Your task to perform on an android device: Open calendar and show me the first week of next month Image 0: 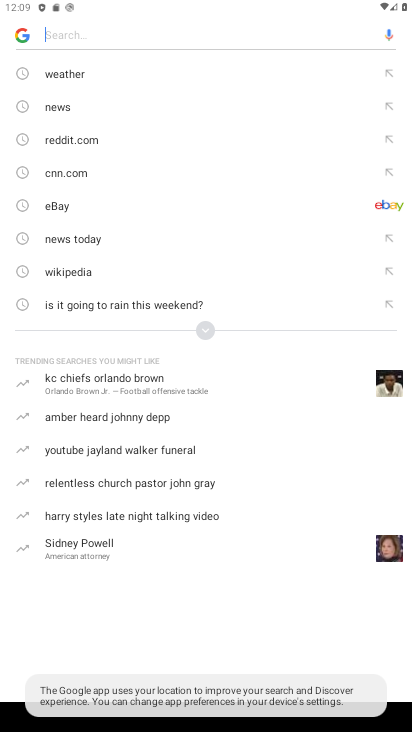
Step 0: press home button
Your task to perform on an android device: Open calendar and show me the first week of next month Image 1: 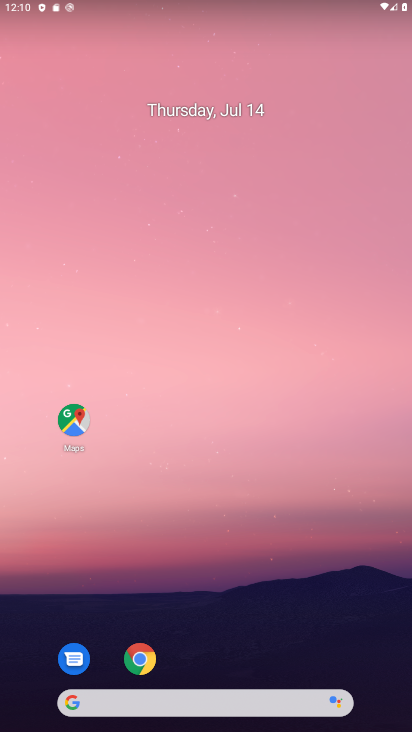
Step 1: drag from (319, 623) to (260, 219)
Your task to perform on an android device: Open calendar and show me the first week of next month Image 2: 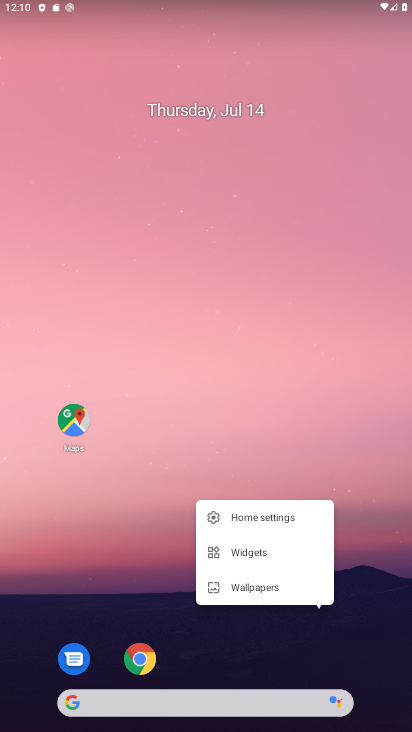
Step 2: drag from (388, 639) to (310, 203)
Your task to perform on an android device: Open calendar and show me the first week of next month Image 3: 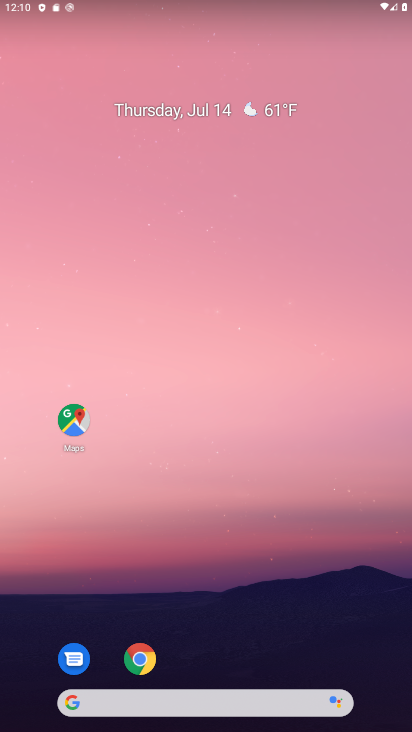
Step 3: drag from (392, 644) to (307, 211)
Your task to perform on an android device: Open calendar and show me the first week of next month Image 4: 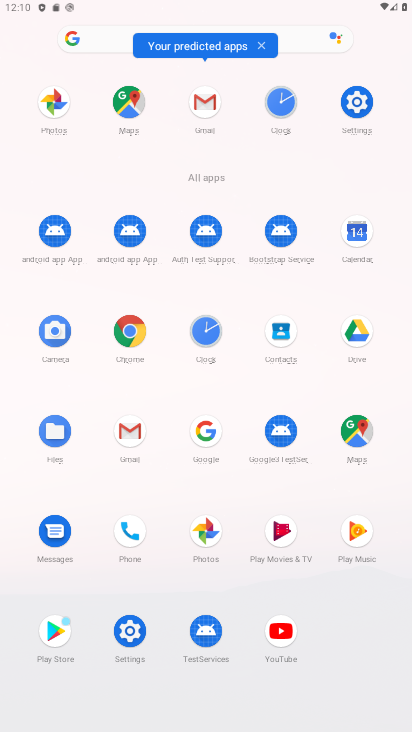
Step 4: click (361, 235)
Your task to perform on an android device: Open calendar and show me the first week of next month Image 5: 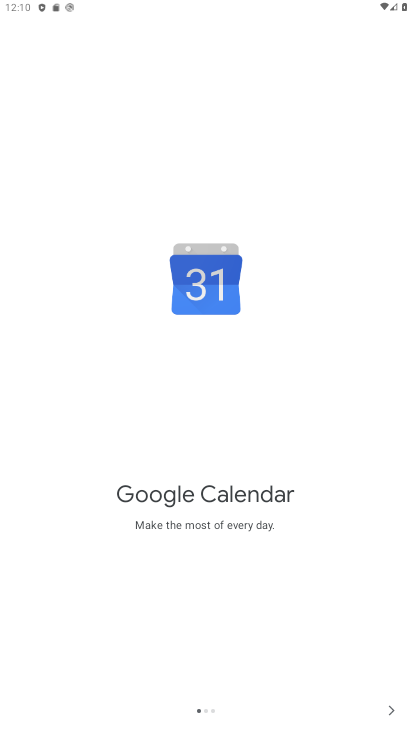
Step 5: click (394, 708)
Your task to perform on an android device: Open calendar and show me the first week of next month Image 6: 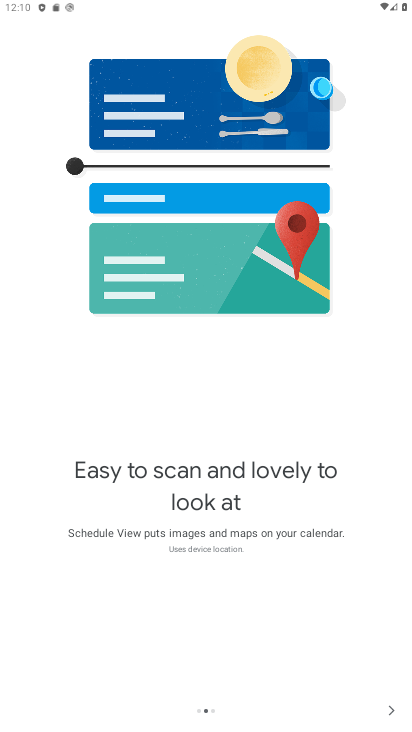
Step 6: click (388, 709)
Your task to perform on an android device: Open calendar and show me the first week of next month Image 7: 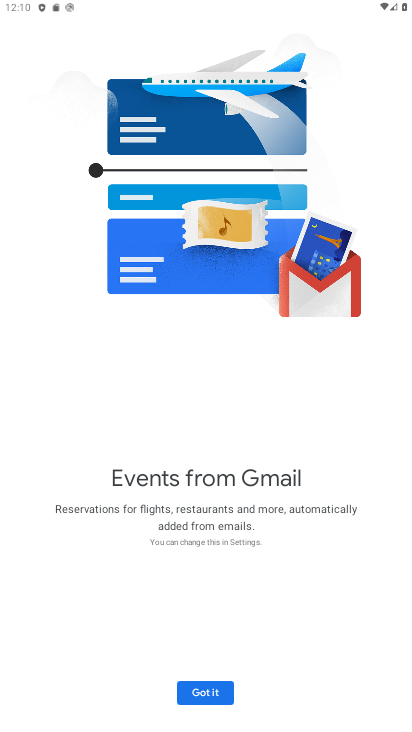
Step 7: click (221, 695)
Your task to perform on an android device: Open calendar and show me the first week of next month Image 8: 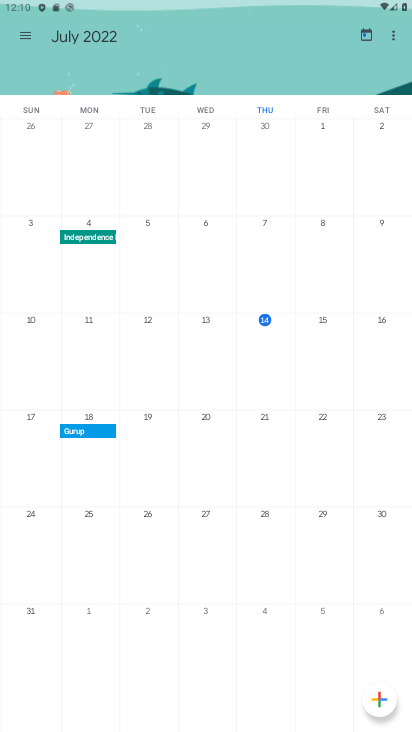
Step 8: click (23, 38)
Your task to perform on an android device: Open calendar and show me the first week of next month Image 9: 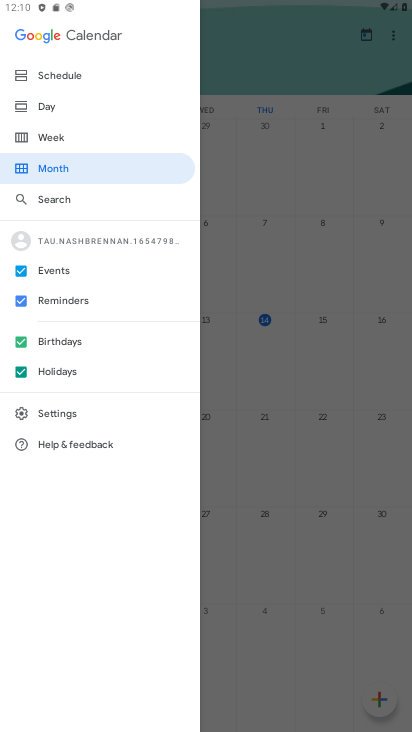
Step 9: click (50, 136)
Your task to perform on an android device: Open calendar and show me the first week of next month Image 10: 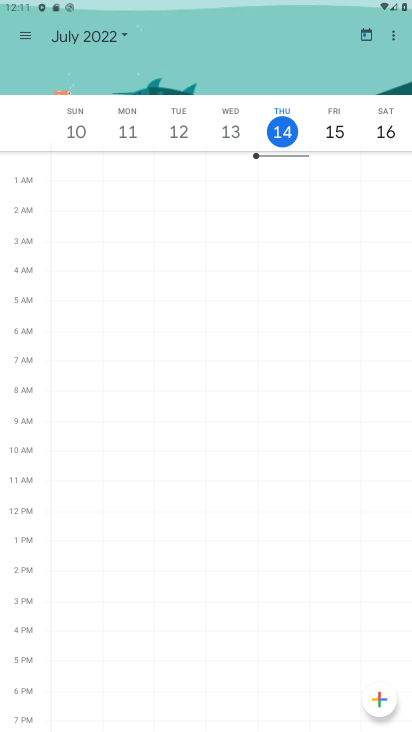
Step 10: click (117, 34)
Your task to perform on an android device: Open calendar and show me the first week of next month Image 11: 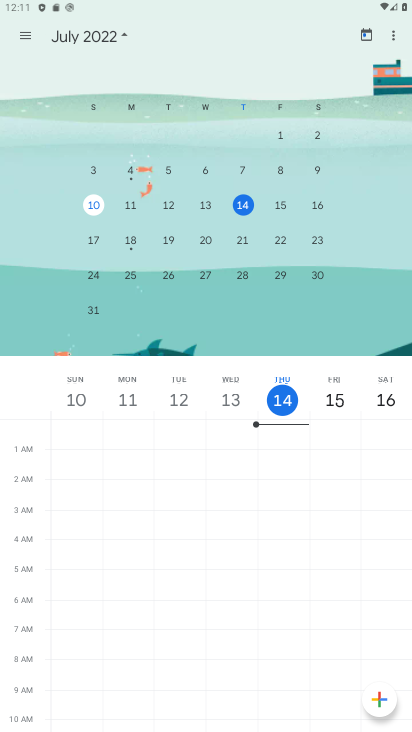
Step 11: drag from (365, 204) to (83, 194)
Your task to perform on an android device: Open calendar and show me the first week of next month Image 12: 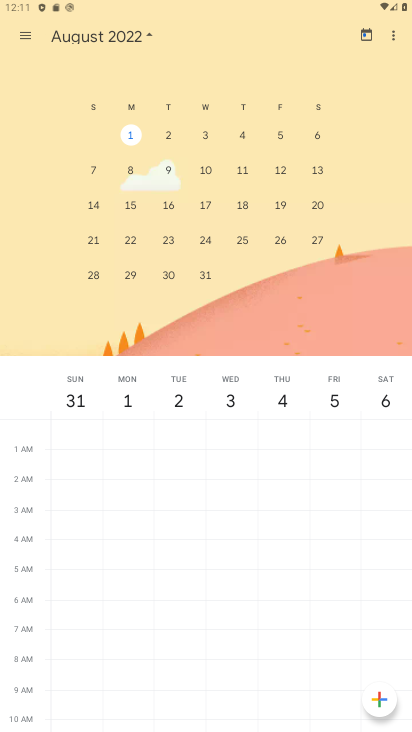
Step 12: click (245, 132)
Your task to perform on an android device: Open calendar and show me the first week of next month Image 13: 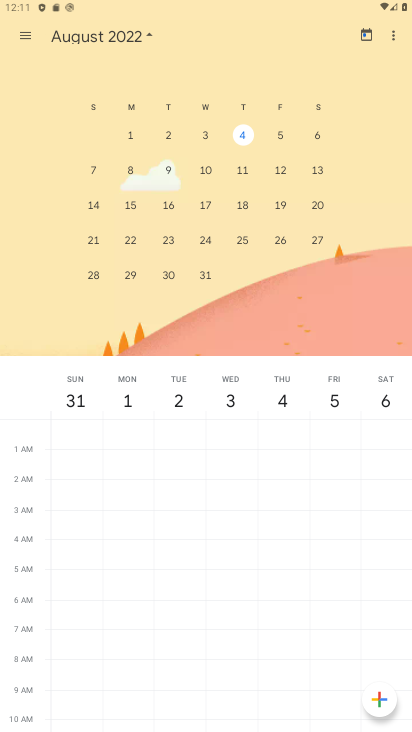
Step 13: task complete